Your task to perform on an android device: empty trash in the gmail app Image 0: 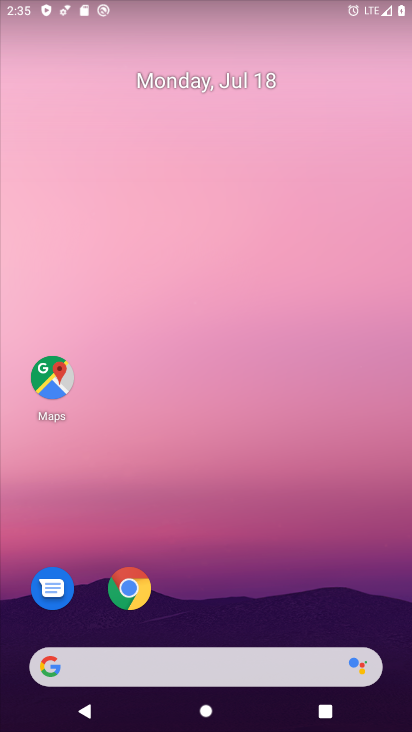
Step 0: drag from (179, 534) to (183, 71)
Your task to perform on an android device: empty trash in the gmail app Image 1: 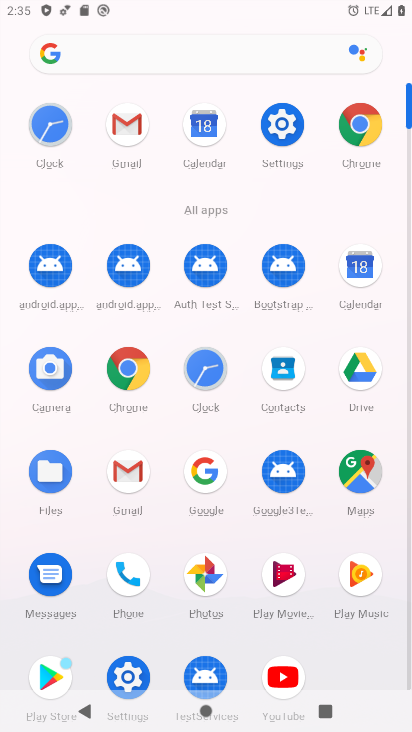
Step 1: click (127, 121)
Your task to perform on an android device: empty trash in the gmail app Image 2: 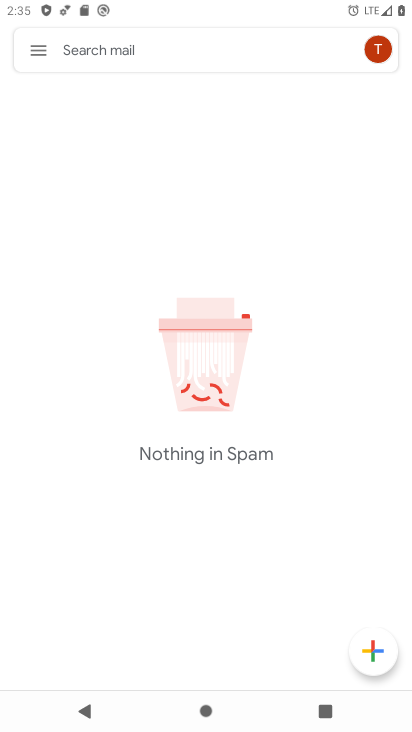
Step 2: click (32, 47)
Your task to perform on an android device: empty trash in the gmail app Image 3: 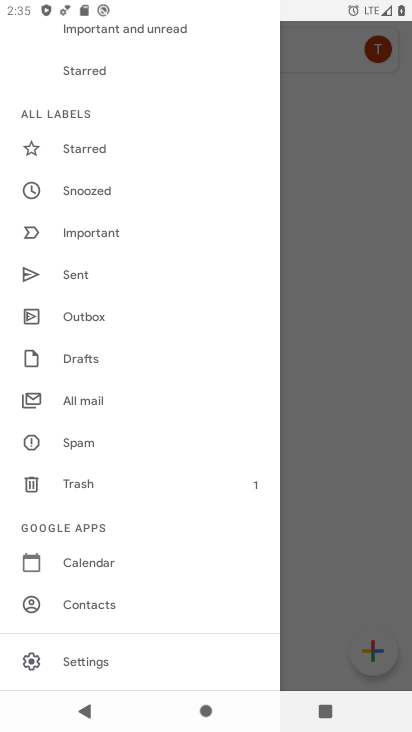
Step 3: click (94, 477)
Your task to perform on an android device: empty trash in the gmail app Image 4: 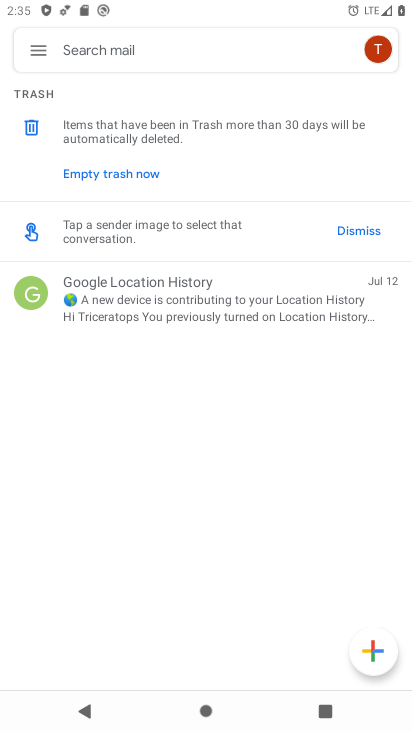
Step 4: click (83, 163)
Your task to perform on an android device: empty trash in the gmail app Image 5: 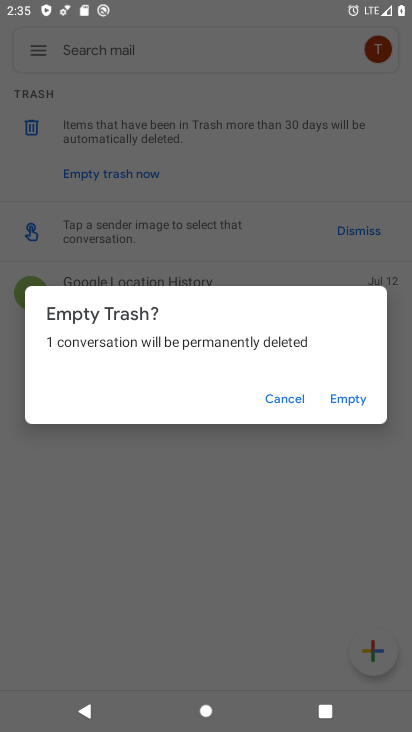
Step 5: click (345, 394)
Your task to perform on an android device: empty trash in the gmail app Image 6: 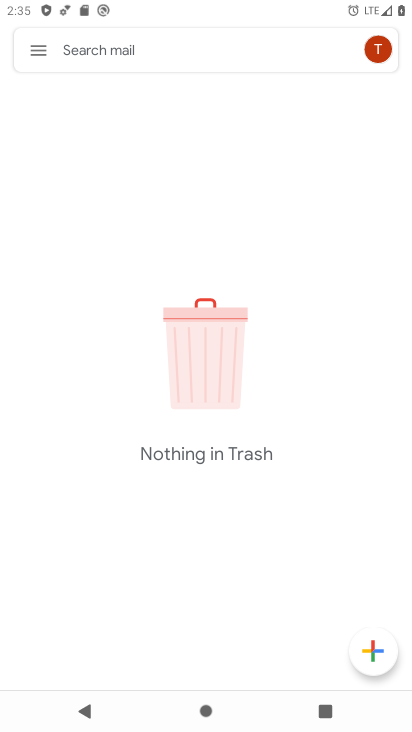
Step 6: task complete